Your task to perform on an android device: toggle javascript in the chrome app Image 0: 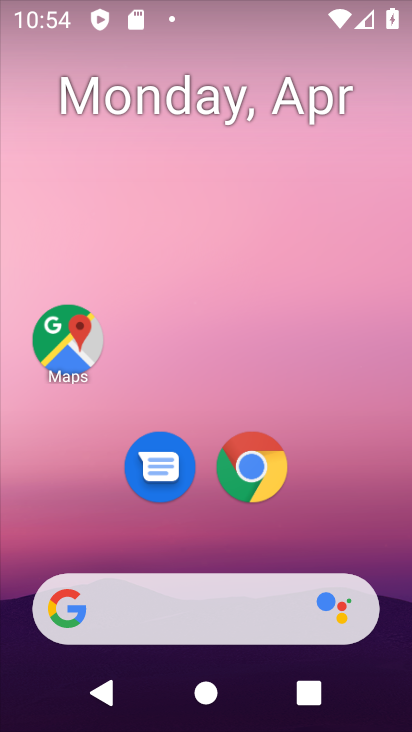
Step 0: click (259, 493)
Your task to perform on an android device: toggle javascript in the chrome app Image 1: 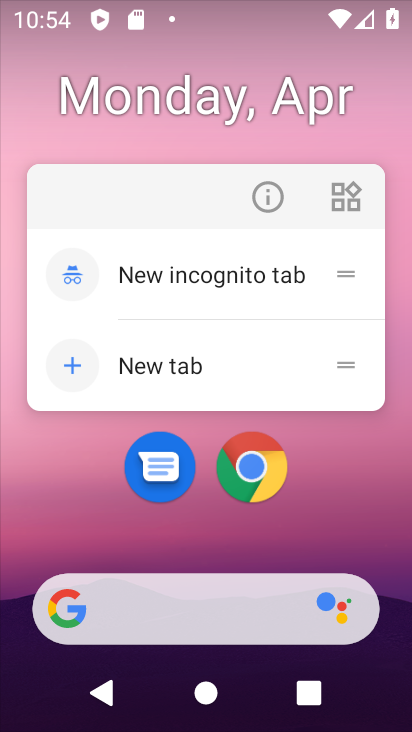
Step 1: click (264, 489)
Your task to perform on an android device: toggle javascript in the chrome app Image 2: 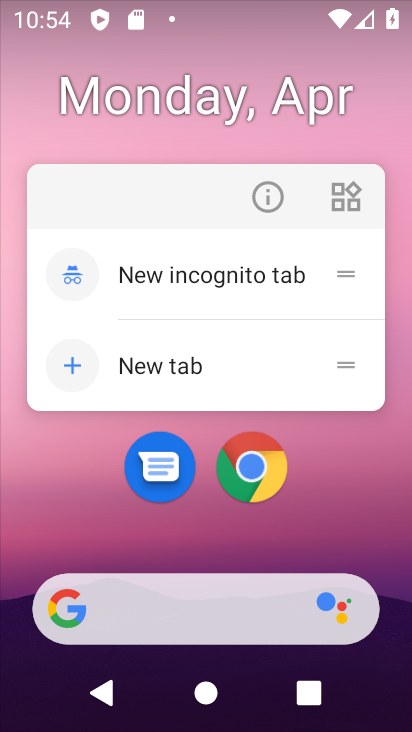
Step 2: click (266, 488)
Your task to perform on an android device: toggle javascript in the chrome app Image 3: 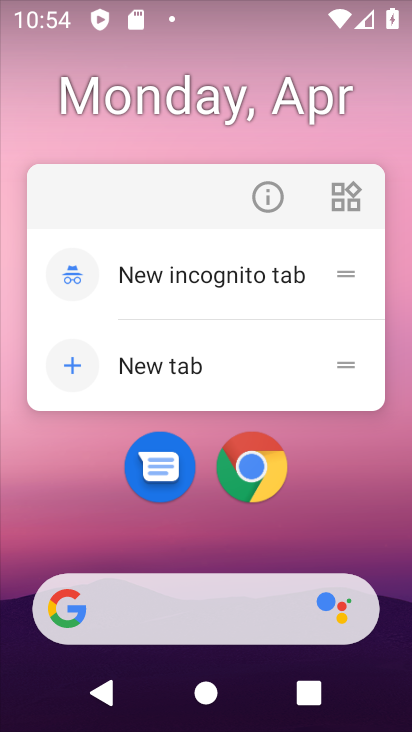
Step 3: click (267, 488)
Your task to perform on an android device: toggle javascript in the chrome app Image 4: 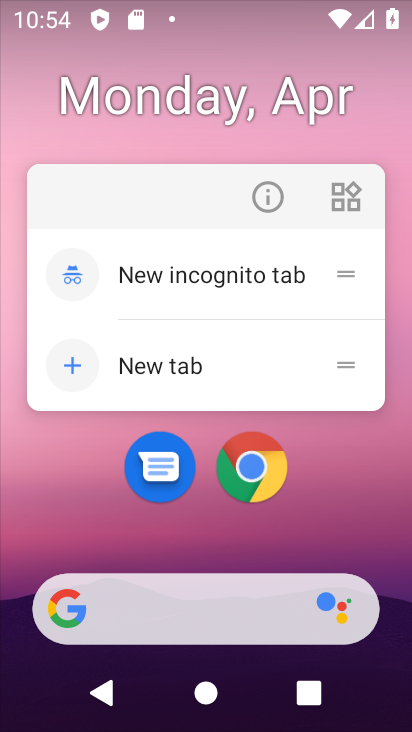
Step 4: click (241, 477)
Your task to perform on an android device: toggle javascript in the chrome app Image 5: 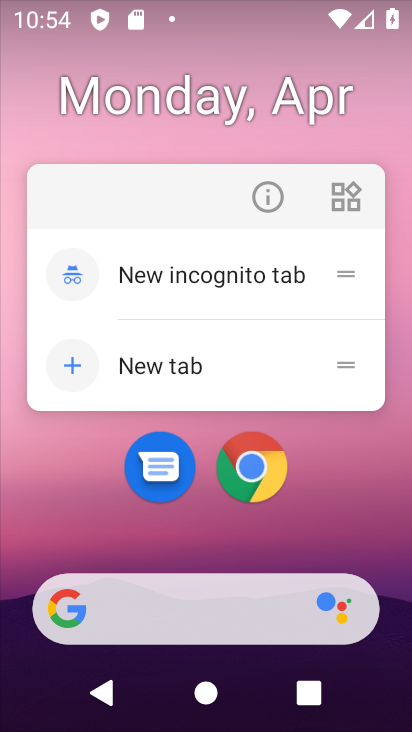
Step 5: click (255, 480)
Your task to perform on an android device: toggle javascript in the chrome app Image 6: 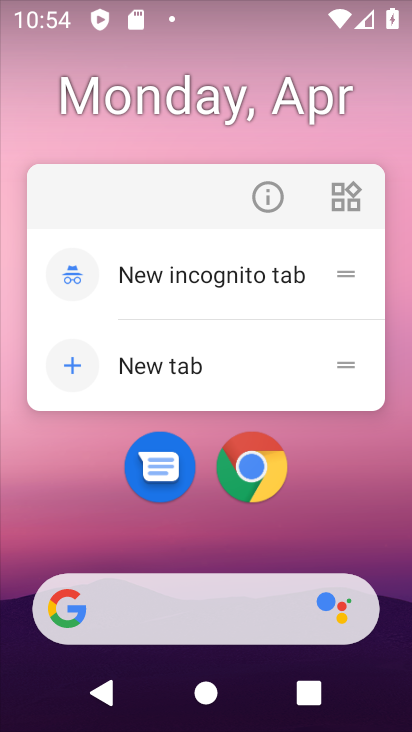
Step 6: click (255, 480)
Your task to perform on an android device: toggle javascript in the chrome app Image 7: 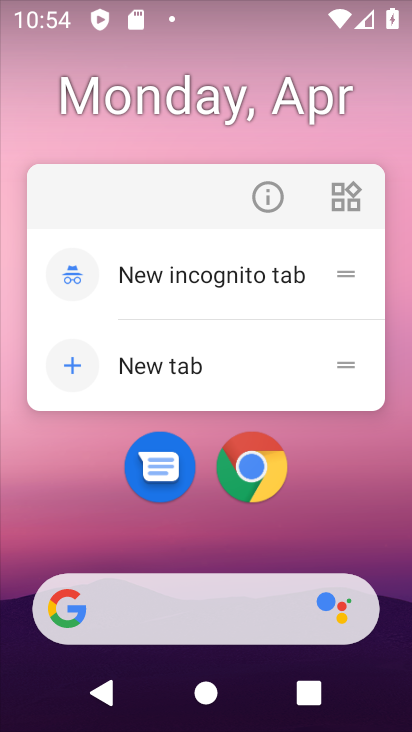
Step 7: click (255, 480)
Your task to perform on an android device: toggle javascript in the chrome app Image 8: 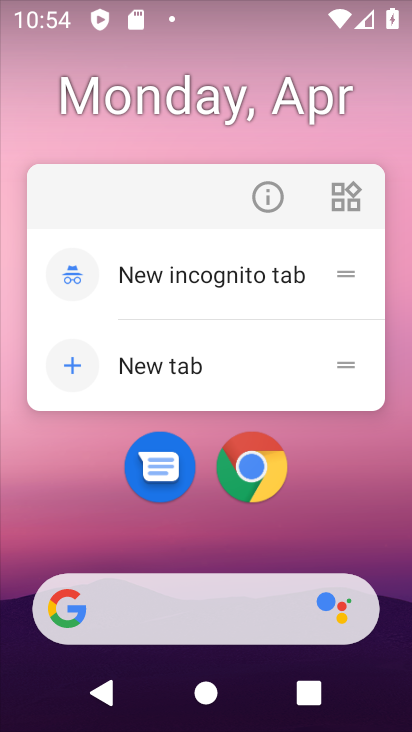
Step 8: click (257, 487)
Your task to perform on an android device: toggle javascript in the chrome app Image 9: 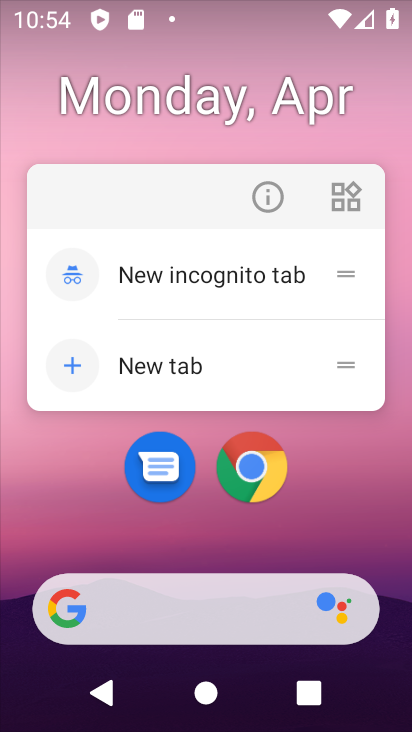
Step 9: click (247, 491)
Your task to perform on an android device: toggle javascript in the chrome app Image 10: 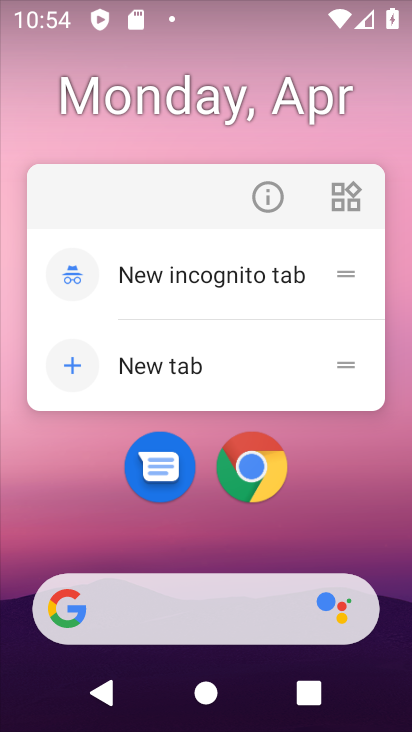
Step 10: click (247, 491)
Your task to perform on an android device: toggle javascript in the chrome app Image 11: 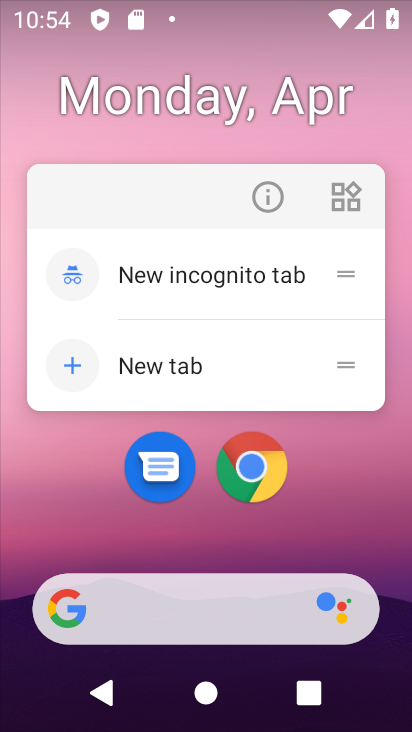
Step 11: click (247, 491)
Your task to perform on an android device: toggle javascript in the chrome app Image 12: 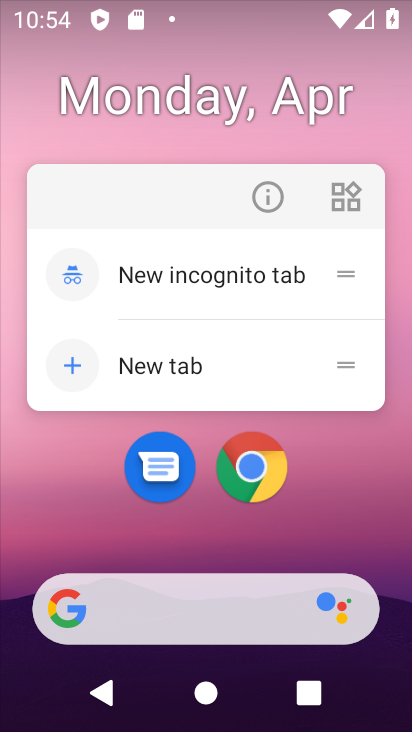
Step 12: click (247, 491)
Your task to perform on an android device: toggle javascript in the chrome app Image 13: 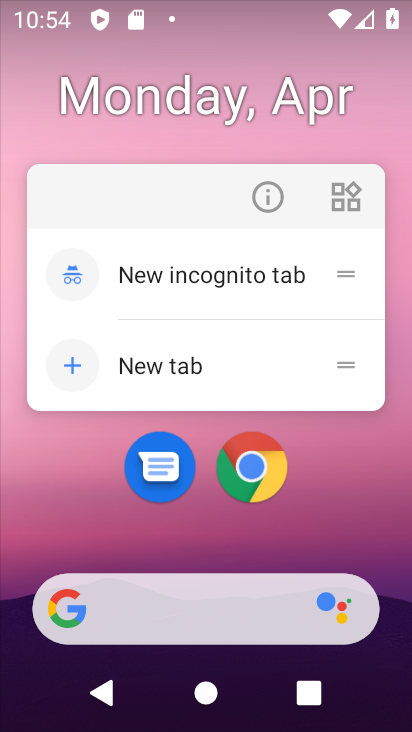
Step 13: click (254, 465)
Your task to perform on an android device: toggle javascript in the chrome app Image 14: 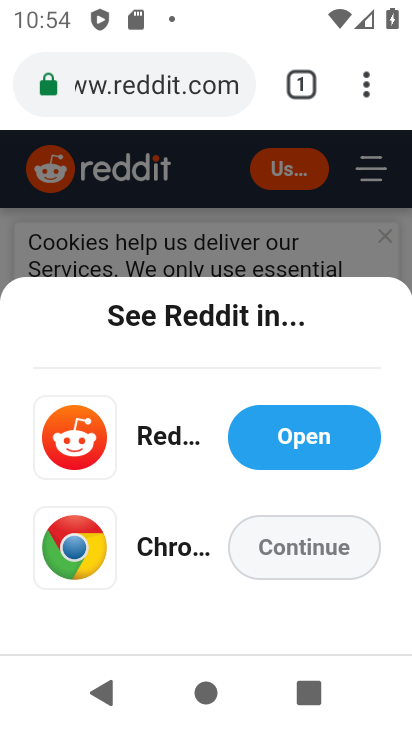
Step 14: drag from (369, 76) to (110, 511)
Your task to perform on an android device: toggle javascript in the chrome app Image 15: 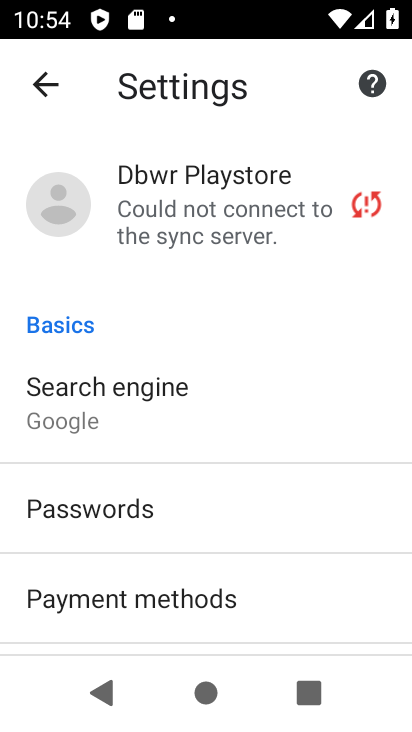
Step 15: drag from (125, 574) to (153, 199)
Your task to perform on an android device: toggle javascript in the chrome app Image 16: 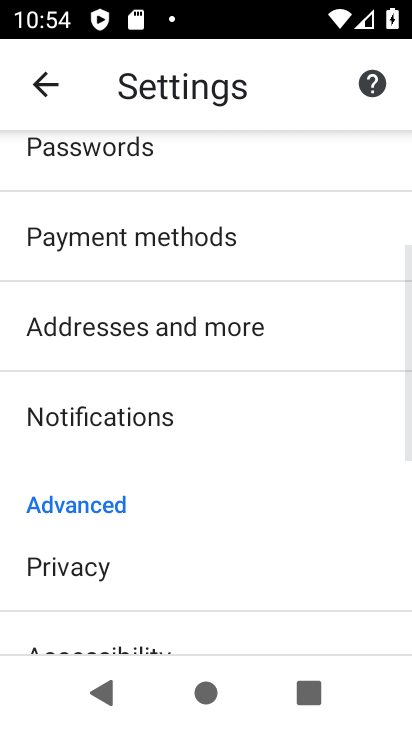
Step 16: drag from (157, 579) to (193, 258)
Your task to perform on an android device: toggle javascript in the chrome app Image 17: 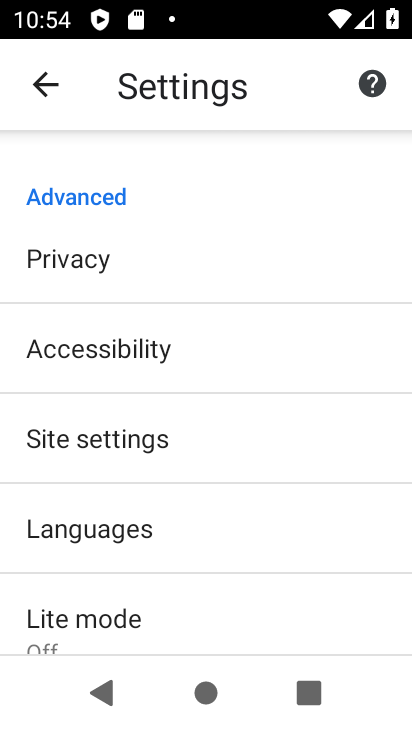
Step 17: click (136, 439)
Your task to perform on an android device: toggle javascript in the chrome app Image 18: 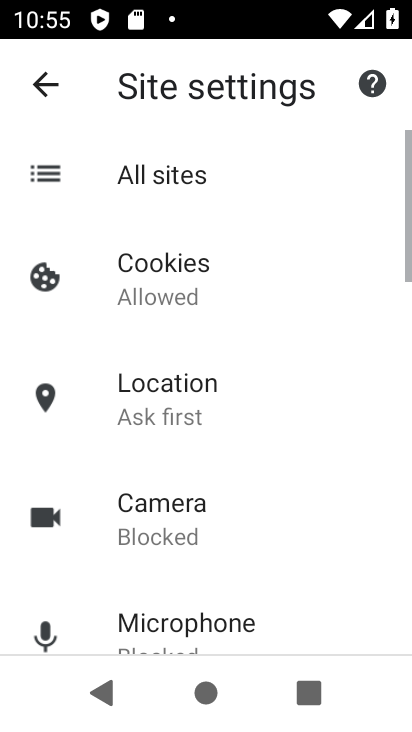
Step 18: drag from (238, 586) to (246, 325)
Your task to perform on an android device: toggle javascript in the chrome app Image 19: 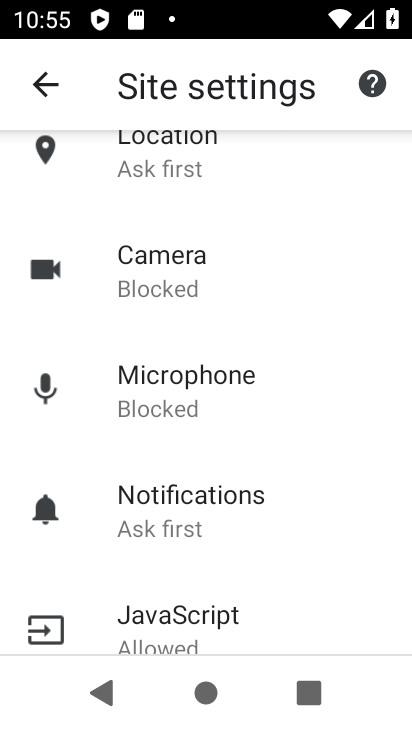
Step 19: click (203, 612)
Your task to perform on an android device: toggle javascript in the chrome app Image 20: 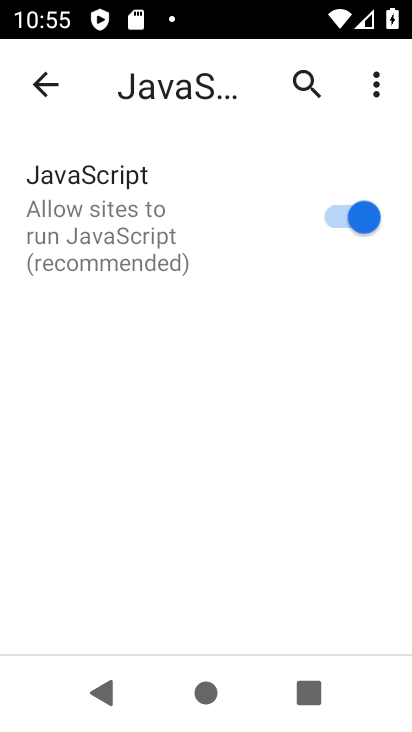
Step 20: click (367, 215)
Your task to perform on an android device: toggle javascript in the chrome app Image 21: 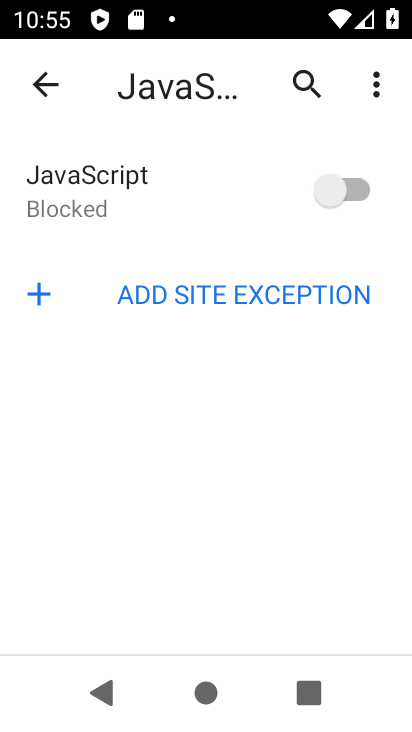
Step 21: task complete